Your task to perform on an android device: turn vacation reply on in the gmail app Image 0: 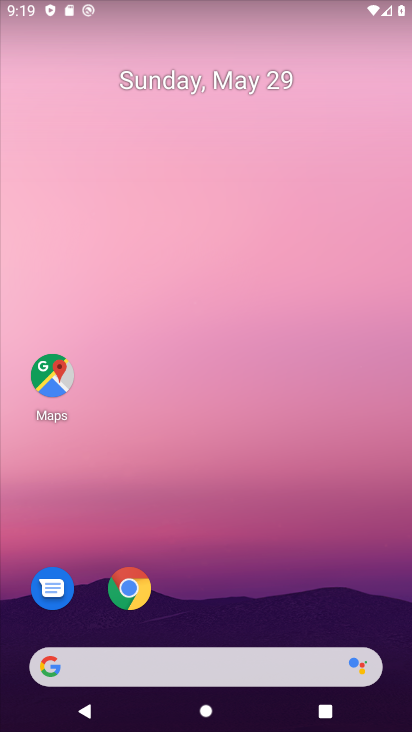
Step 0: drag from (220, 619) to (159, 10)
Your task to perform on an android device: turn vacation reply on in the gmail app Image 1: 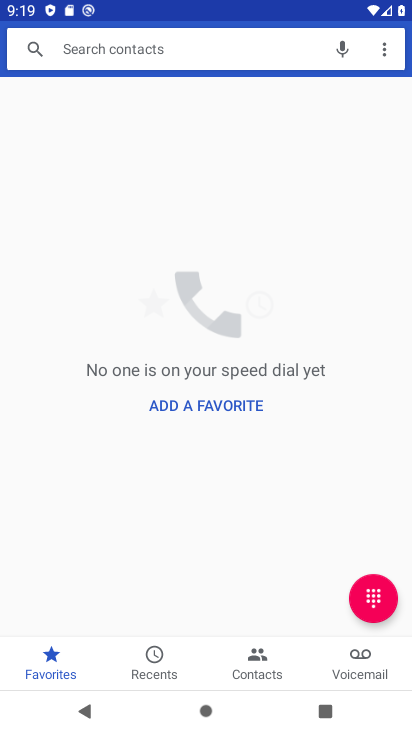
Step 1: press home button
Your task to perform on an android device: turn vacation reply on in the gmail app Image 2: 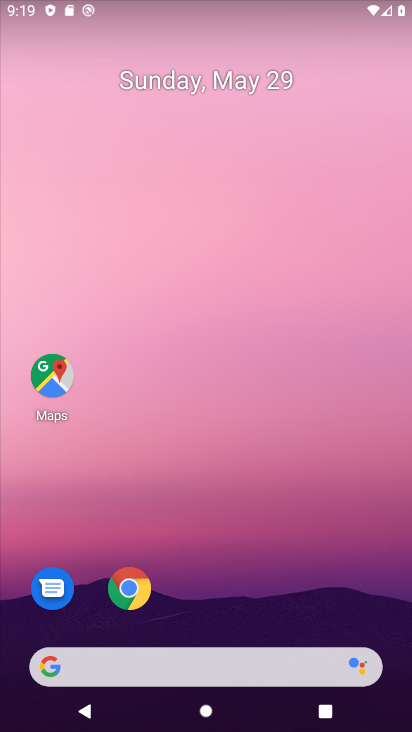
Step 2: drag from (232, 624) to (199, 111)
Your task to perform on an android device: turn vacation reply on in the gmail app Image 3: 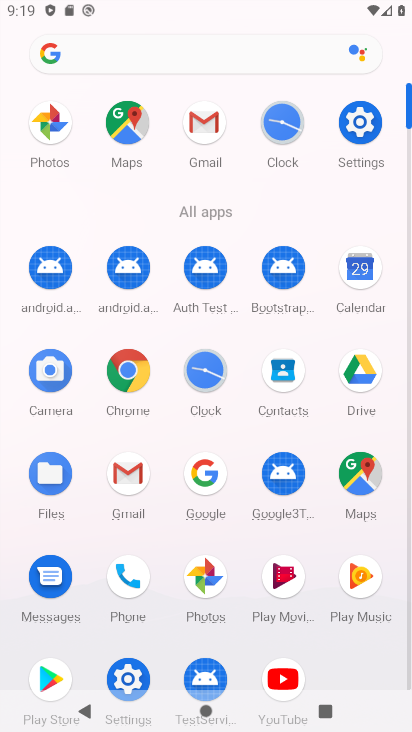
Step 3: click (202, 114)
Your task to perform on an android device: turn vacation reply on in the gmail app Image 4: 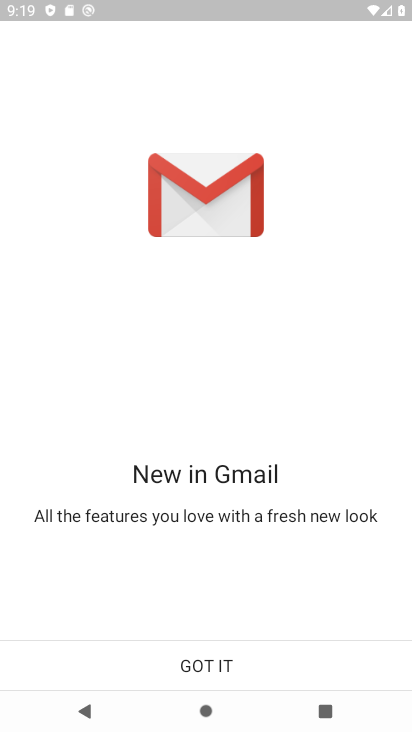
Step 4: click (203, 661)
Your task to perform on an android device: turn vacation reply on in the gmail app Image 5: 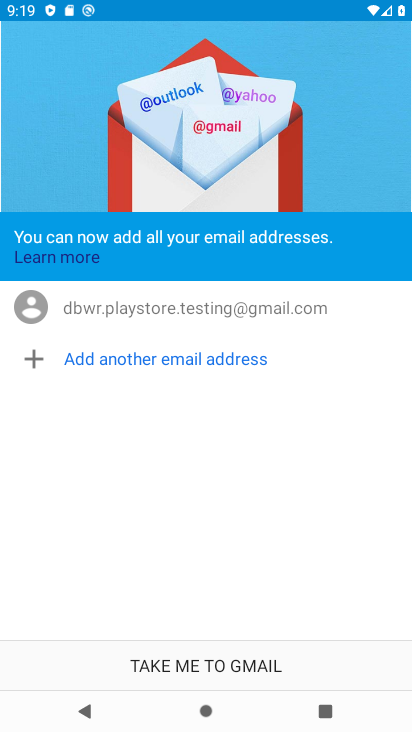
Step 5: click (203, 661)
Your task to perform on an android device: turn vacation reply on in the gmail app Image 6: 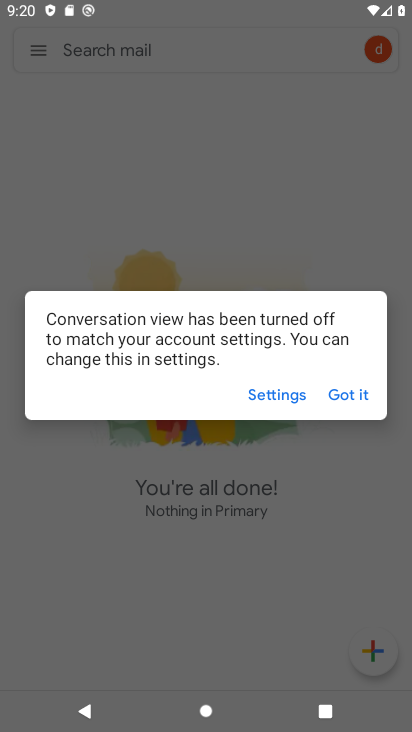
Step 6: click (352, 391)
Your task to perform on an android device: turn vacation reply on in the gmail app Image 7: 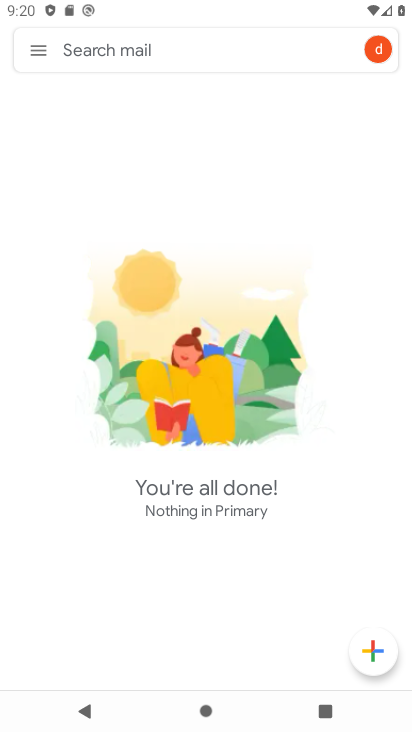
Step 7: click (35, 58)
Your task to perform on an android device: turn vacation reply on in the gmail app Image 8: 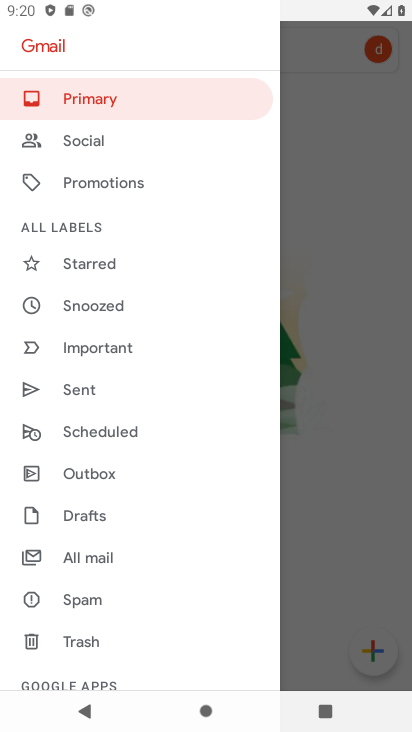
Step 8: drag from (124, 497) to (86, 111)
Your task to perform on an android device: turn vacation reply on in the gmail app Image 9: 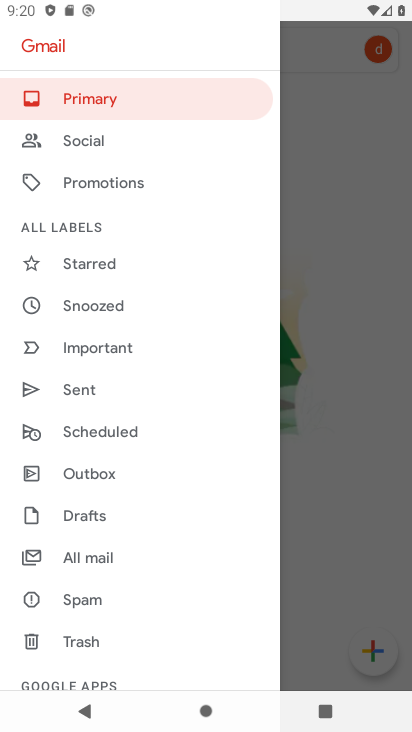
Step 9: drag from (91, 635) to (89, 162)
Your task to perform on an android device: turn vacation reply on in the gmail app Image 10: 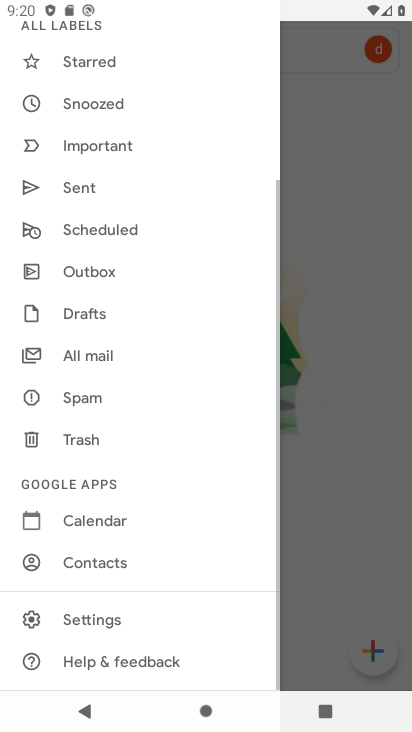
Step 10: click (98, 606)
Your task to perform on an android device: turn vacation reply on in the gmail app Image 11: 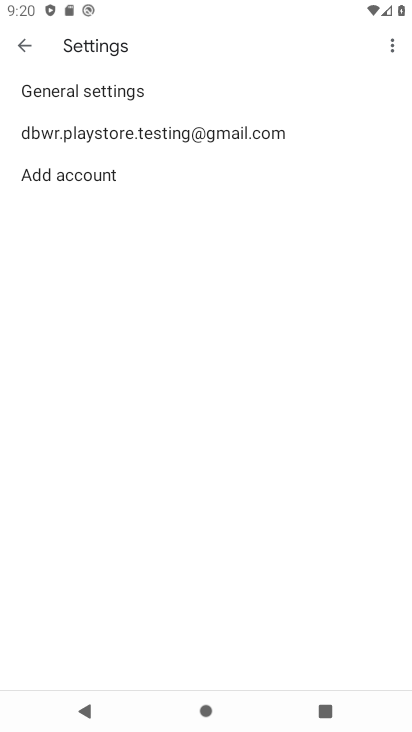
Step 11: click (246, 124)
Your task to perform on an android device: turn vacation reply on in the gmail app Image 12: 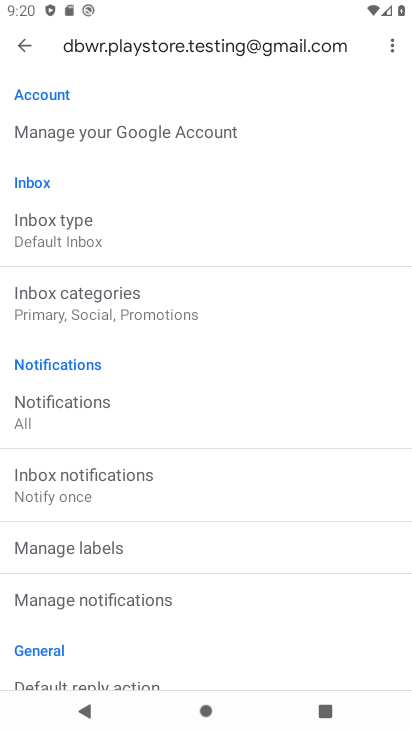
Step 12: drag from (211, 641) to (183, 419)
Your task to perform on an android device: turn vacation reply on in the gmail app Image 13: 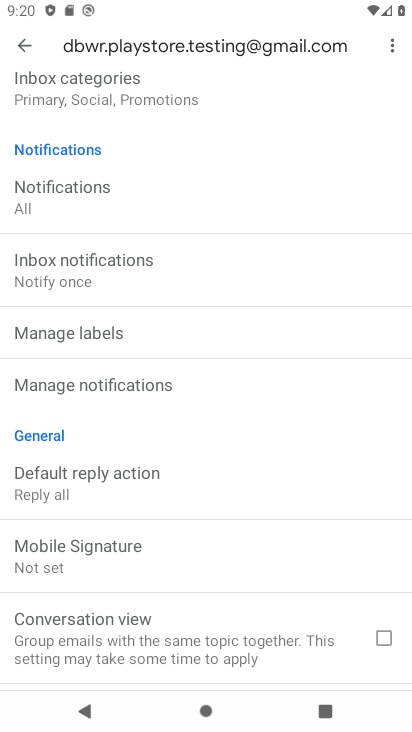
Step 13: drag from (205, 569) to (169, 205)
Your task to perform on an android device: turn vacation reply on in the gmail app Image 14: 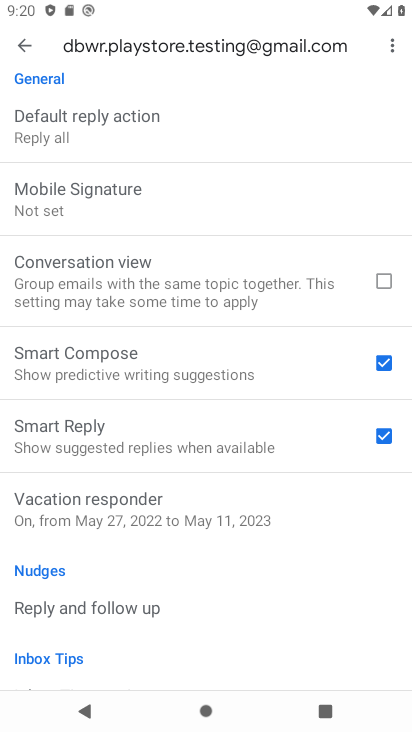
Step 14: click (181, 508)
Your task to perform on an android device: turn vacation reply on in the gmail app Image 15: 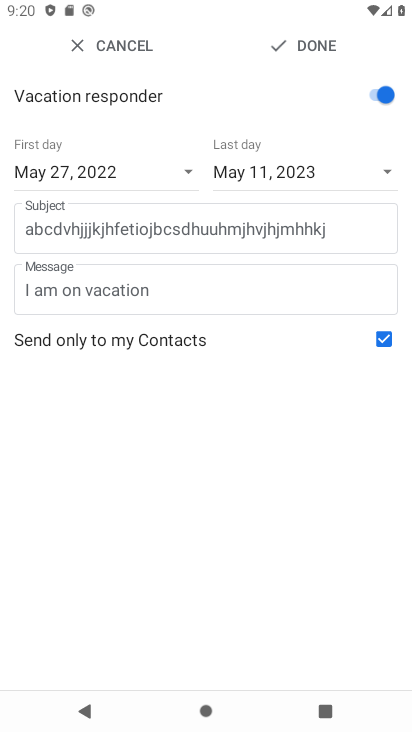
Step 15: click (336, 52)
Your task to perform on an android device: turn vacation reply on in the gmail app Image 16: 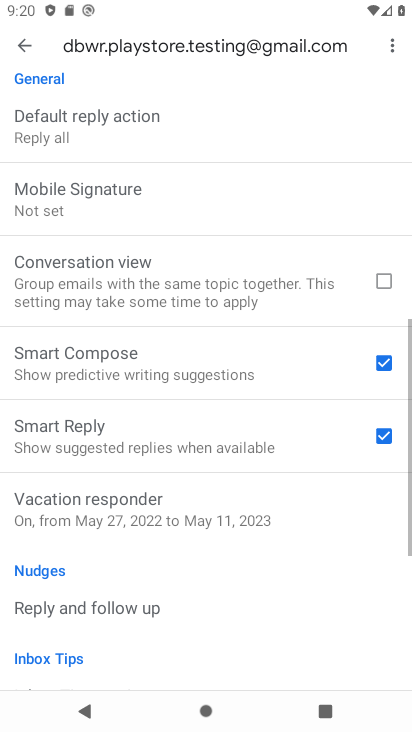
Step 16: task complete